Your task to perform on an android device: Open the stopwatch Image 0: 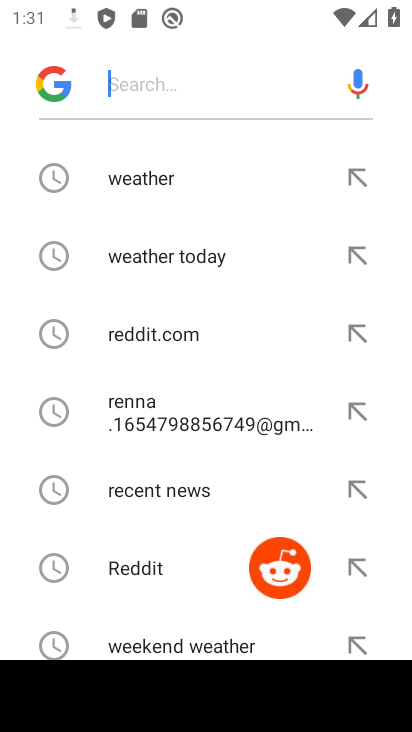
Step 0: press home button
Your task to perform on an android device: Open the stopwatch Image 1: 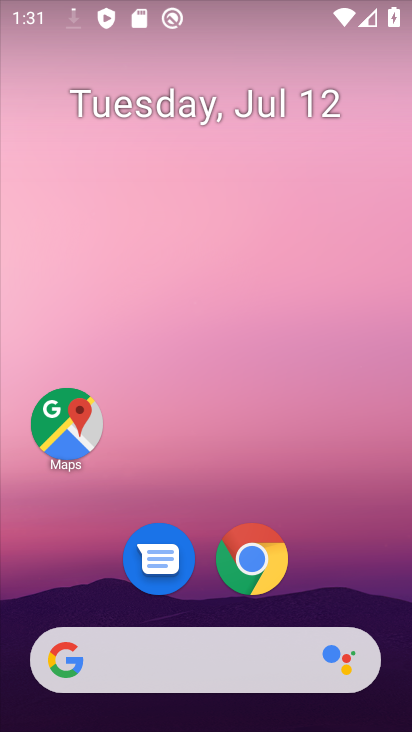
Step 1: drag from (362, 593) to (300, 18)
Your task to perform on an android device: Open the stopwatch Image 2: 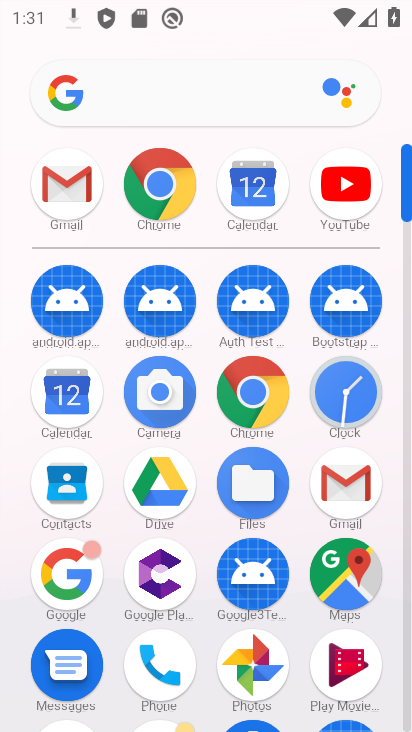
Step 2: click (351, 397)
Your task to perform on an android device: Open the stopwatch Image 3: 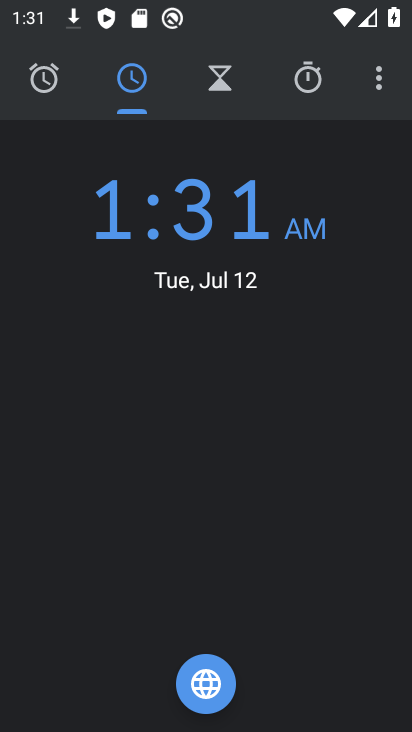
Step 3: click (314, 92)
Your task to perform on an android device: Open the stopwatch Image 4: 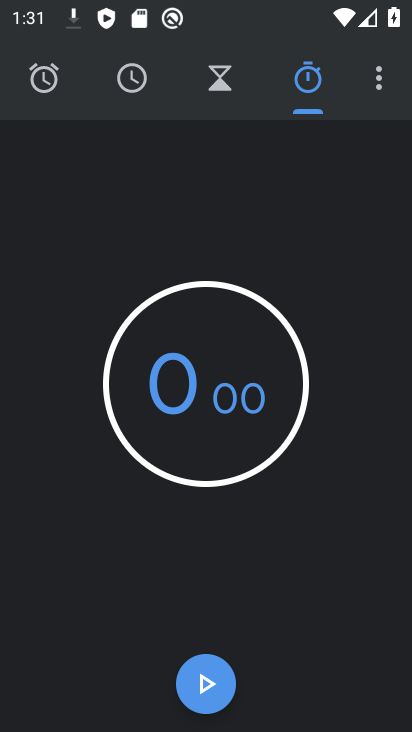
Step 4: task complete